Your task to perform on an android device: toggle notifications settings in the gmail app Image 0: 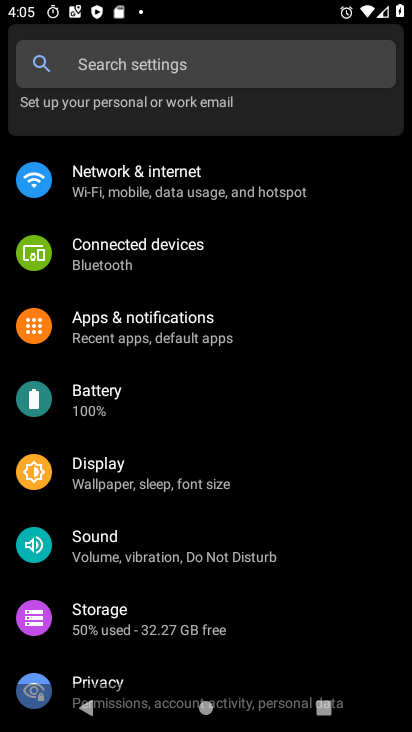
Step 0: press home button
Your task to perform on an android device: toggle notifications settings in the gmail app Image 1: 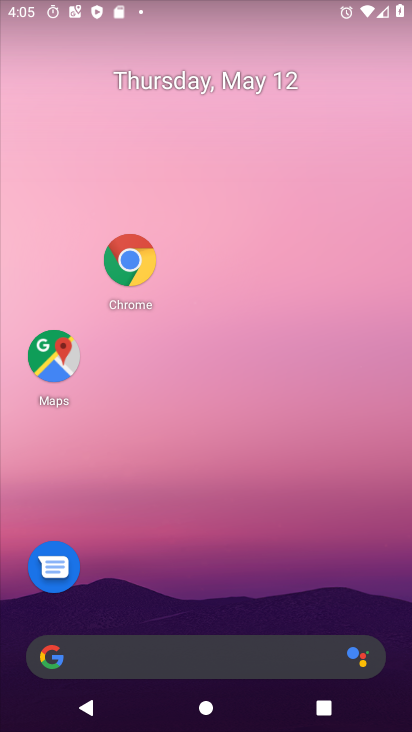
Step 1: drag from (200, 533) to (196, 219)
Your task to perform on an android device: toggle notifications settings in the gmail app Image 2: 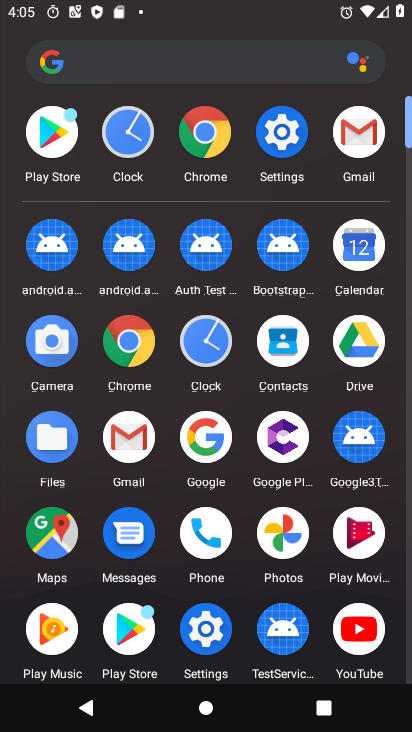
Step 2: click (351, 131)
Your task to perform on an android device: toggle notifications settings in the gmail app Image 3: 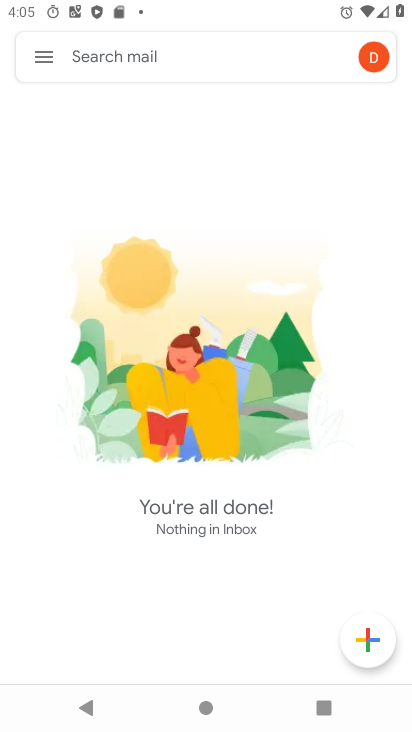
Step 3: click (41, 52)
Your task to perform on an android device: toggle notifications settings in the gmail app Image 4: 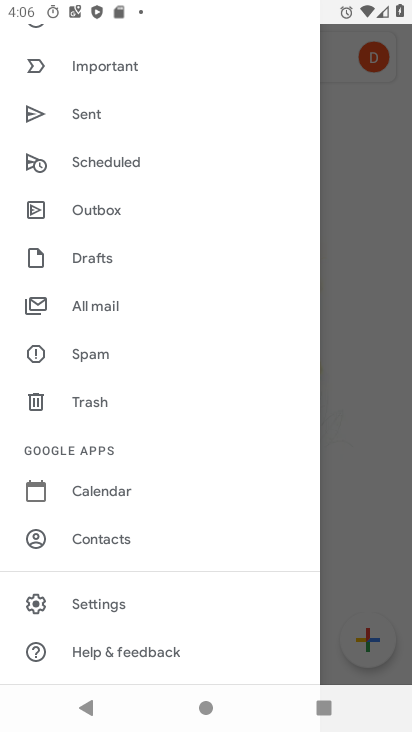
Step 4: click (105, 602)
Your task to perform on an android device: toggle notifications settings in the gmail app Image 5: 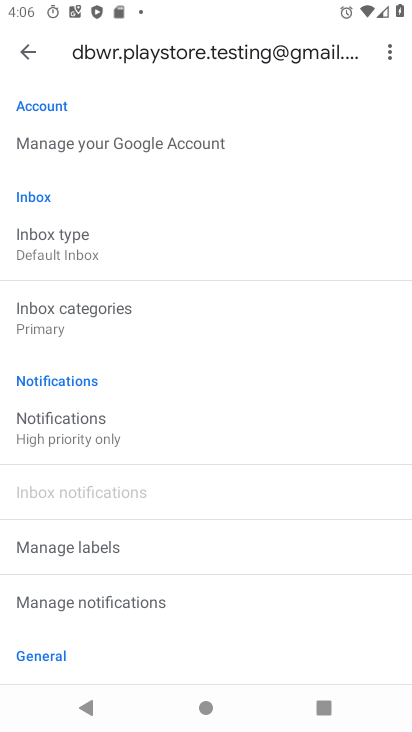
Step 5: click (19, 42)
Your task to perform on an android device: toggle notifications settings in the gmail app Image 6: 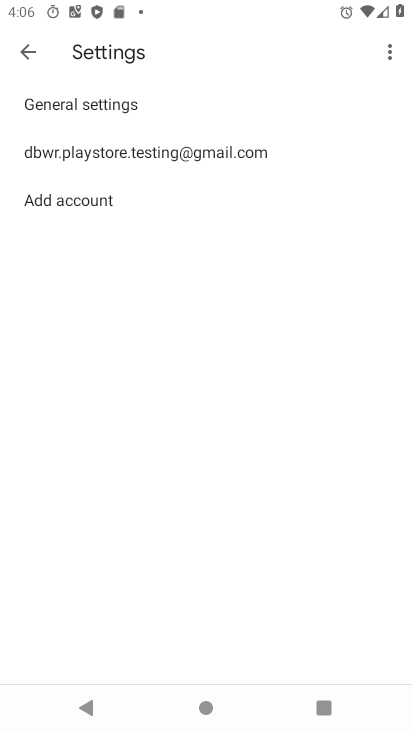
Step 6: click (84, 101)
Your task to perform on an android device: toggle notifications settings in the gmail app Image 7: 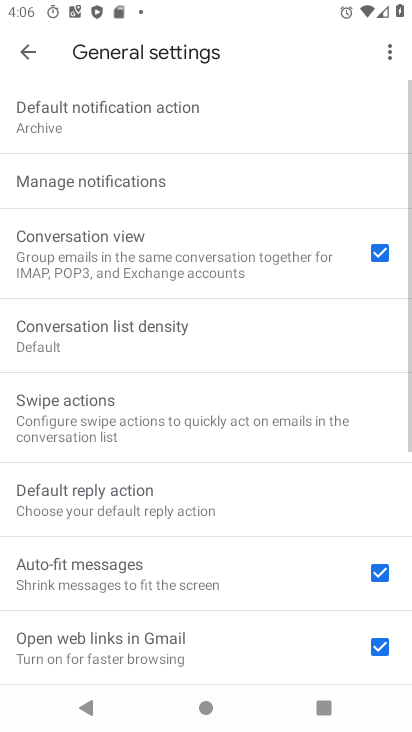
Step 7: click (72, 186)
Your task to perform on an android device: toggle notifications settings in the gmail app Image 8: 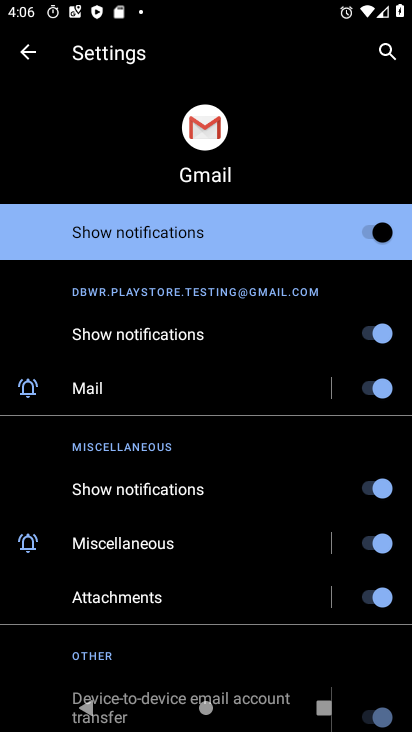
Step 8: click (370, 230)
Your task to perform on an android device: toggle notifications settings in the gmail app Image 9: 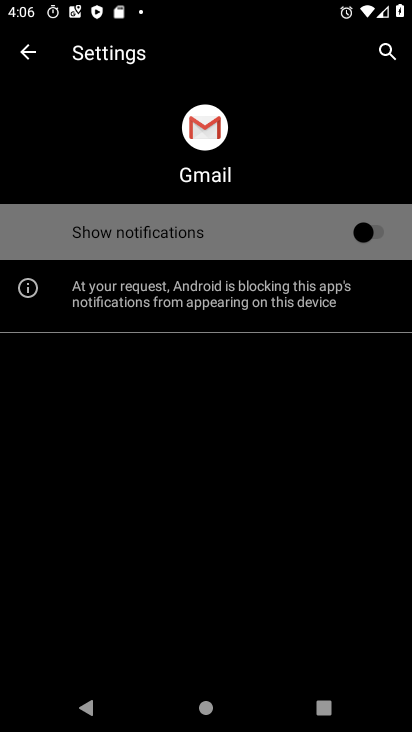
Step 9: task complete